Your task to perform on an android device: Open Chrome and go to the settings page Image 0: 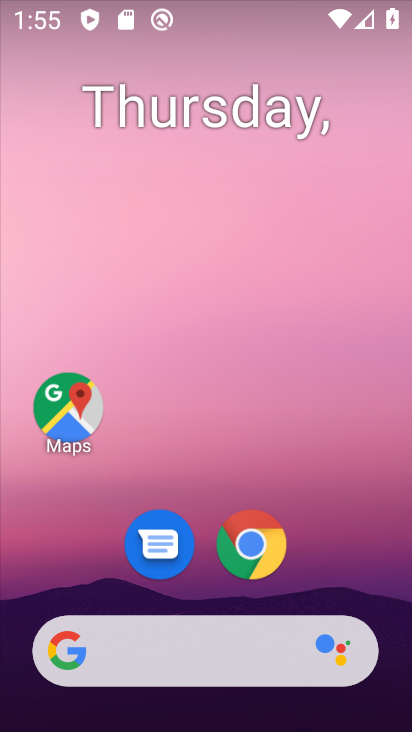
Step 0: click (261, 550)
Your task to perform on an android device: Open Chrome and go to the settings page Image 1: 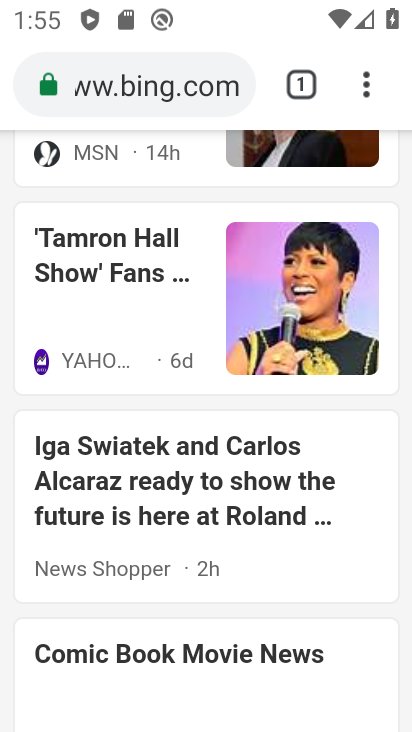
Step 1: click (367, 81)
Your task to perform on an android device: Open Chrome and go to the settings page Image 2: 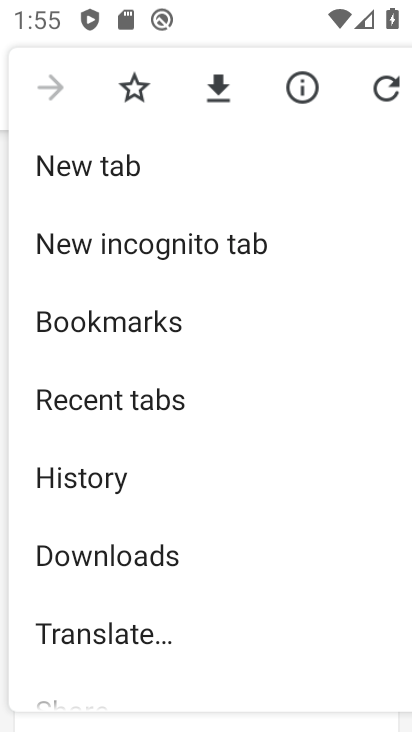
Step 2: drag from (87, 618) to (78, 216)
Your task to perform on an android device: Open Chrome and go to the settings page Image 3: 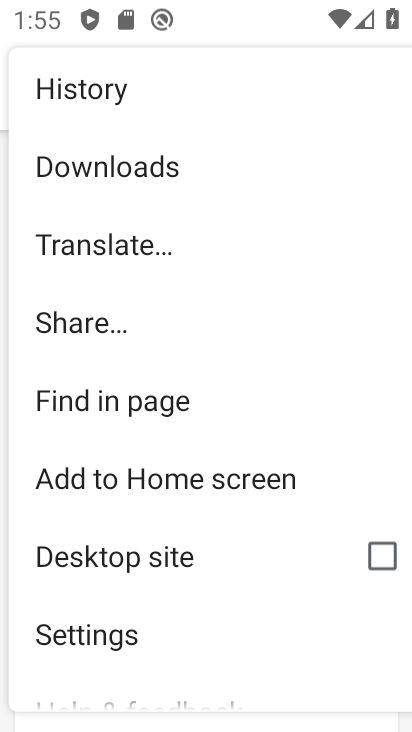
Step 3: click (109, 642)
Your task to perform on an android device: Open Chrome and go to the settings page Image 4: 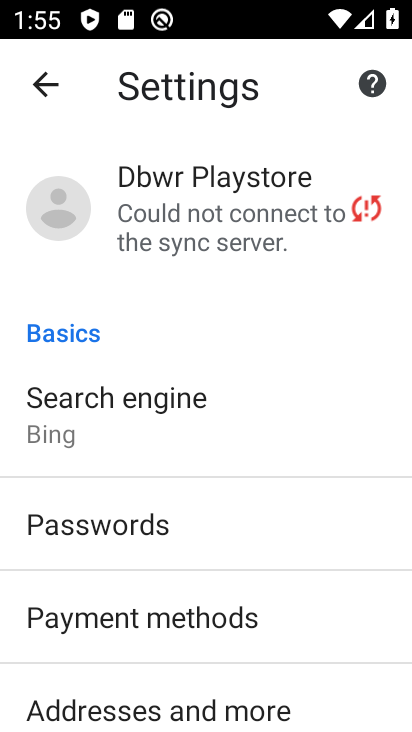
Step 4: task complete